Your task to perform on an android device: check storage Image 0: 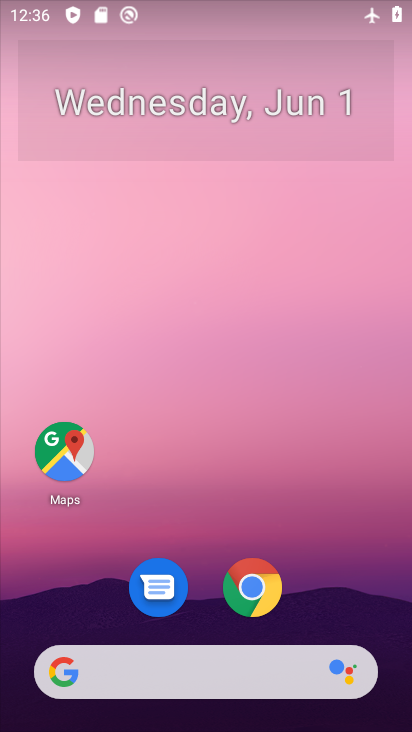
Step 0: drag from (259, 482) to (168, 41)
Your task to perform on an android device: check storage Image 1: 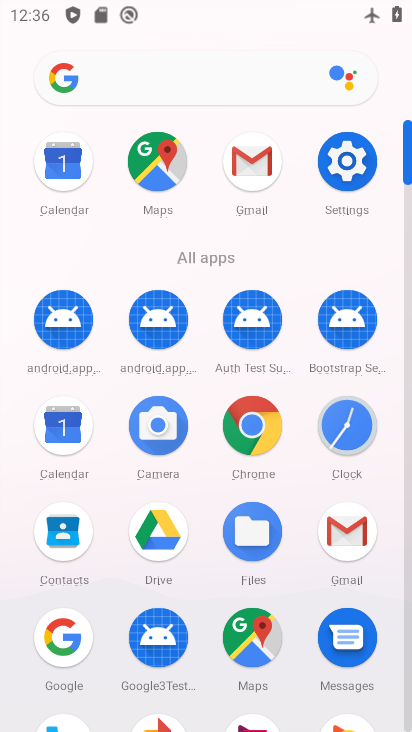
Step 1: click (353, 159)
Your task to perform on an android device: check storage Image 2: 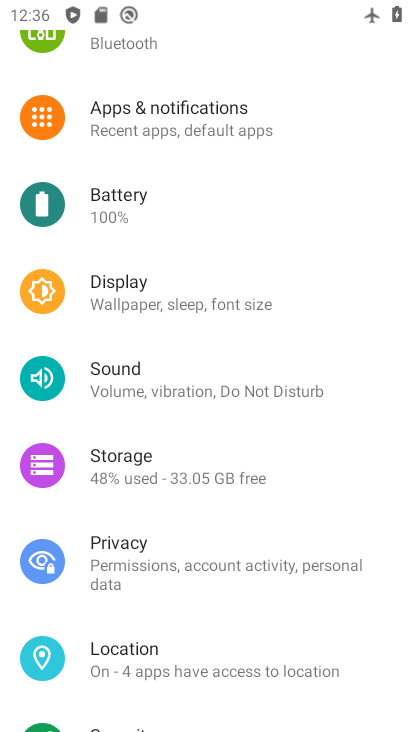
Step 2: click (134, 452)
Your task to perform on an android device: check storage Image 3: 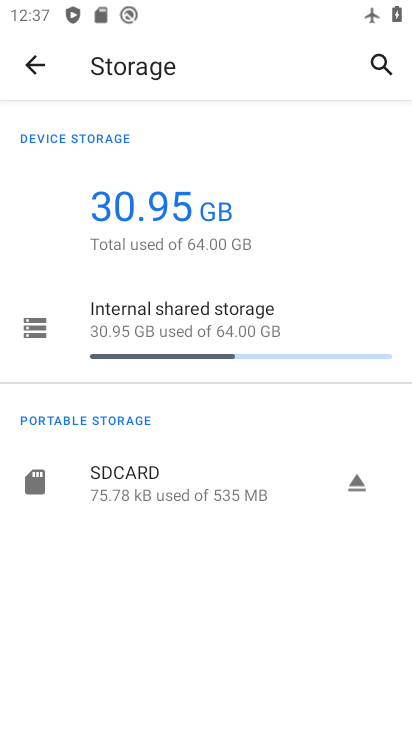
Step 3: task complete